Your task to perform on an android device: Open Google Chrome Image 0: 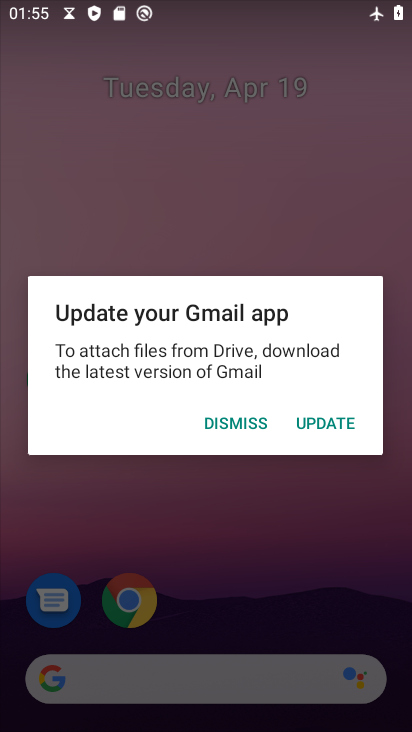
Step 0: press home button
Your task to perform on an android device: Open Google Chrome Image 1: 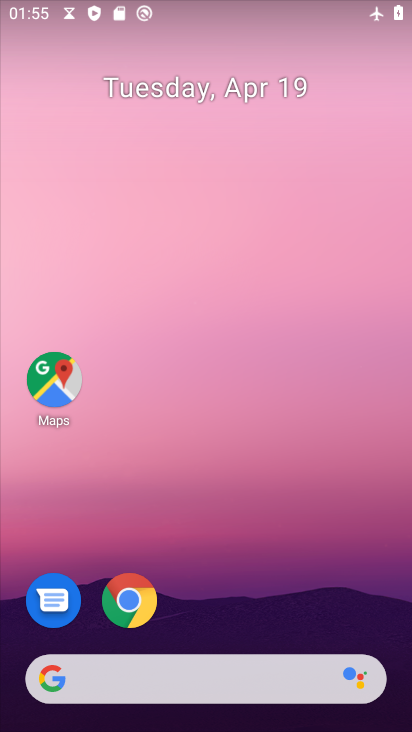
Step 1: click (141, 602)
Your task to perform on an android device: Open Google Chrome Image 2: 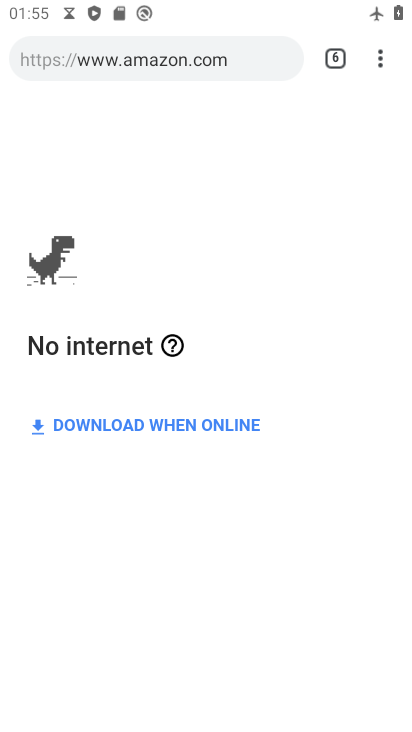
Step 2: task complete